Your task to perform on an android device: When is my next meeting? Image 0: 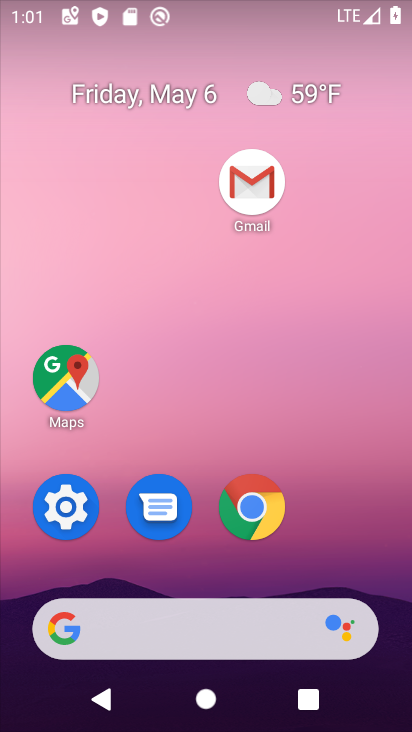
Step 0: drag from (353, 572) to (235, 5)
Your task to perform on an android device: When is my next meeting? Image 1: 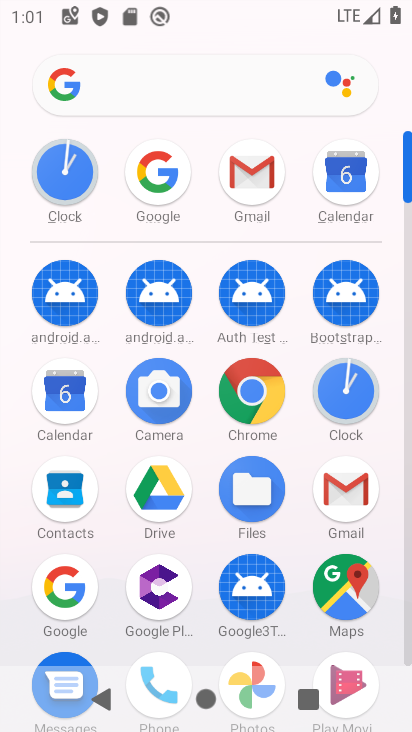
Step 1: click (70, 385)
Your task to perform on an android device: When is my next meeting? Image 2: 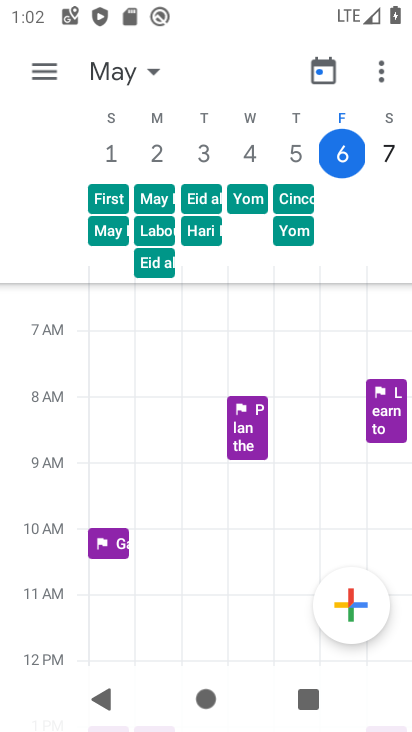
Step 2: task complete